Your task to perform on an android device: delete browsing data in the chrome app Image 0: 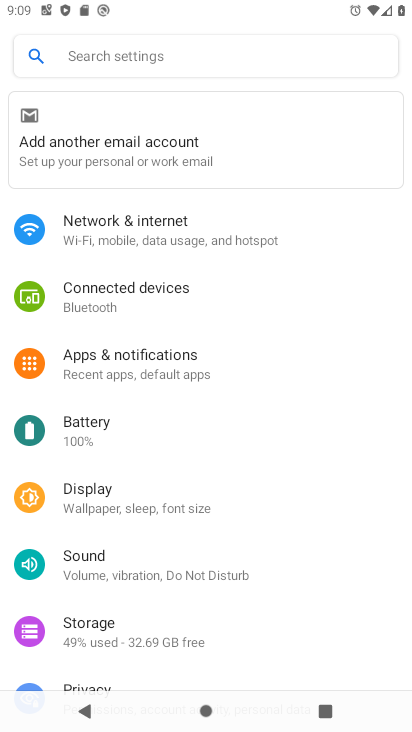
Step 0: press back button
Your task to perform on an android device: delete browsing data in the chrome app Image 1: 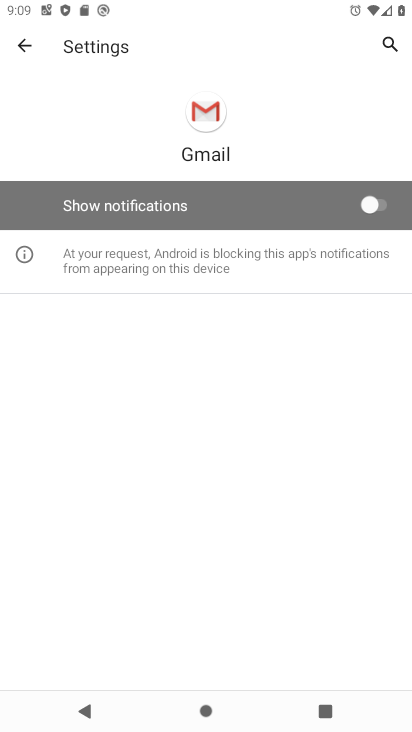
Step 1: press back button
Your task to perform on an android device: delete browsing data in the chrome app Image 2: 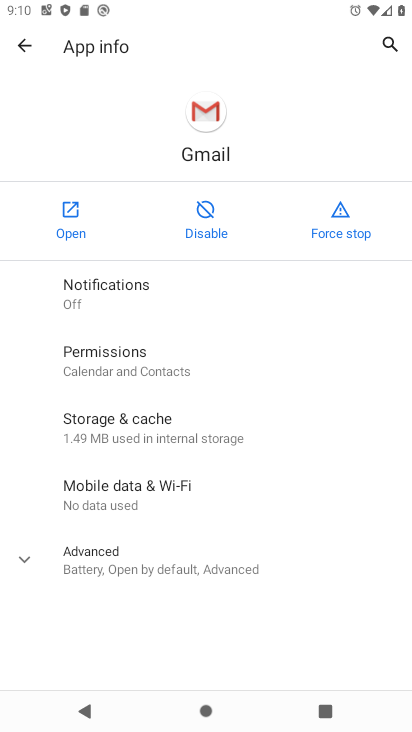
Step 2: press back button
Your task to perform on an android device: delete browsing data in the chrome app Image 3: 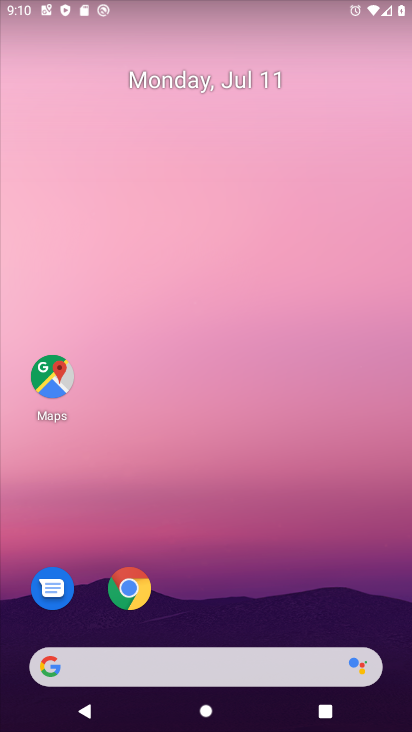
Step 3: click (123, 589)
Your task to perform on an android device: delete browsing data in the chrome app Image 4: 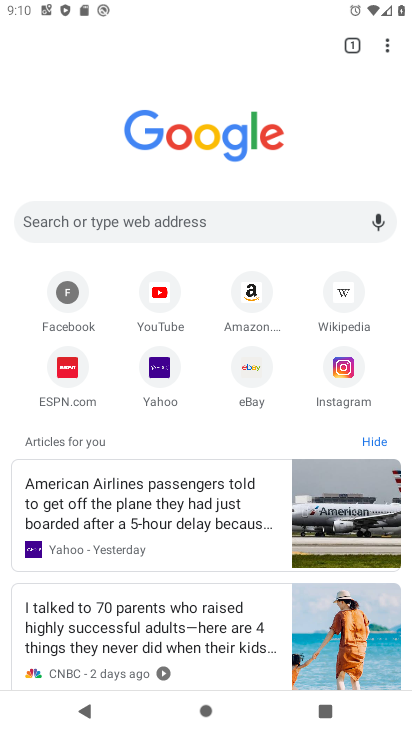
Step 4: drag from (387, 44) to (242, 251)
Your task to perform on an android device: delete browsing data in the chrome app Image 5: 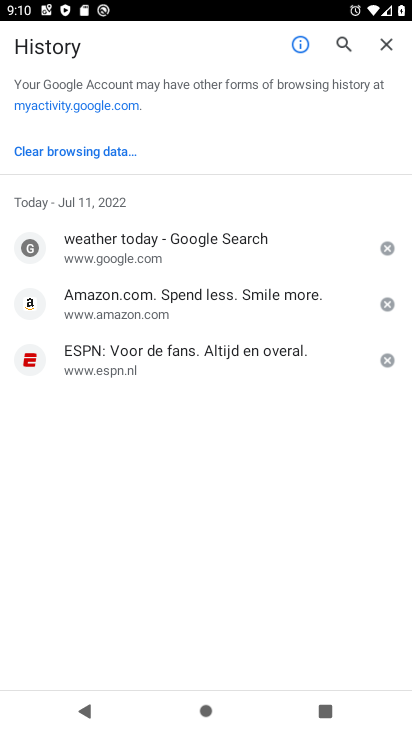
Step 5: click (67, 147)
Your task to perform on an android device: delete browsing data in the chrome app Image 6: 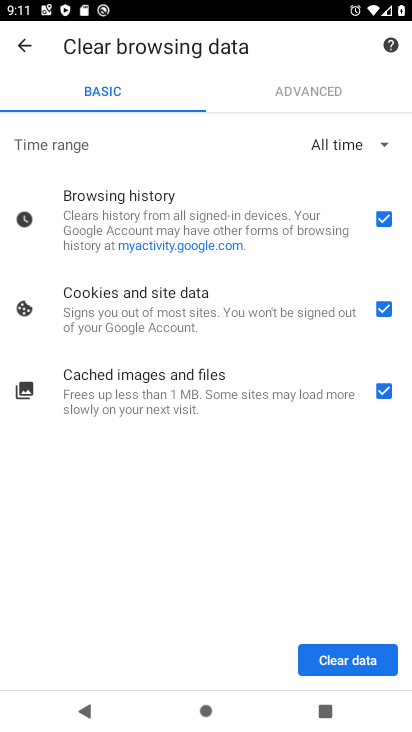
Step 6: click (370, 649)
Your task to perform on an android device: delete browsing data in the chrome app Image 7: 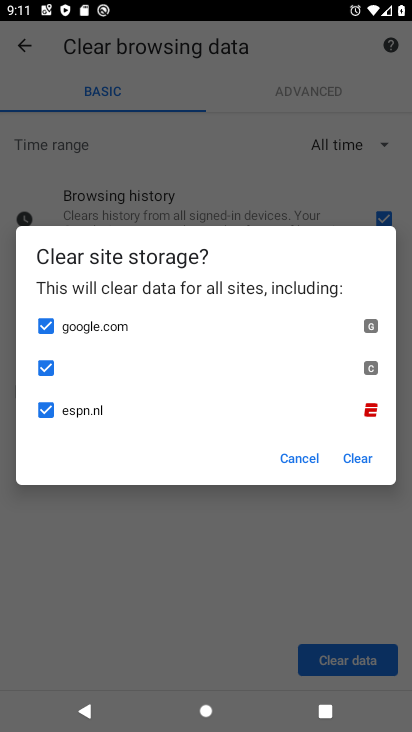
Step 7: click (361, 466)
Your task to perform on an android device: delete browsing data in the chrome app Image 8: 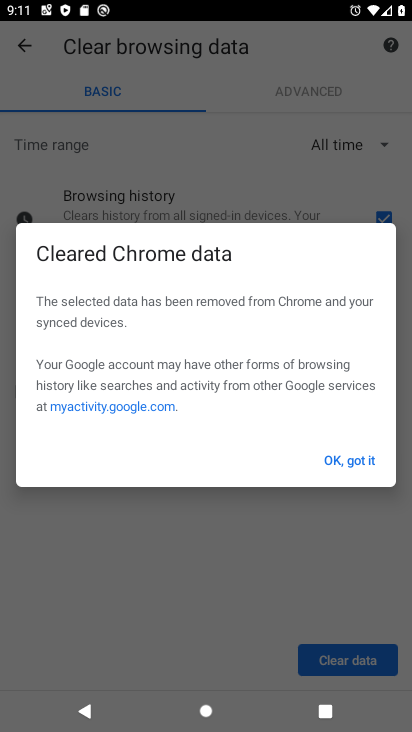
Step 8: click (342, 456)
Your task to perform on an android device: delete browsing data in the chrome app Image 9: 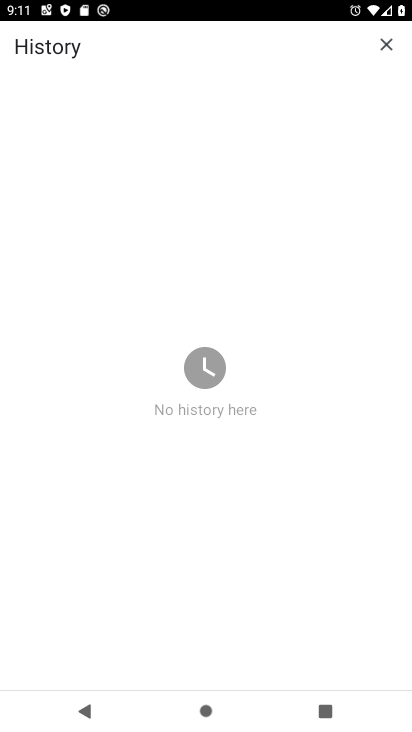
Step 9: task complete